Your task to perform on an android device: Go to Yahoo.com Image 0: 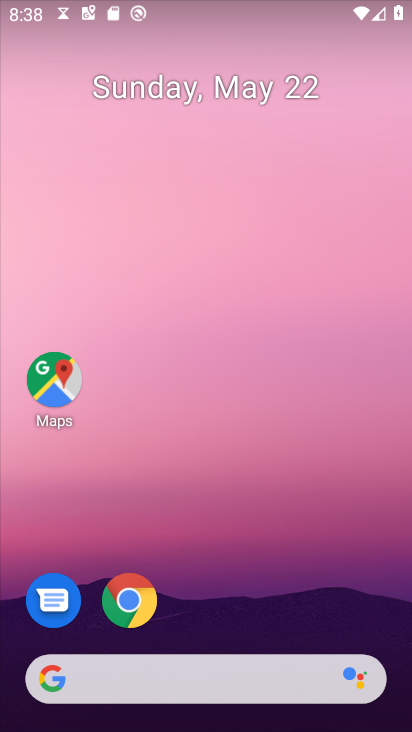
Step 0: click (130, 607)
Your task to perform on an android device: Go to Yahoo.com Image 1: 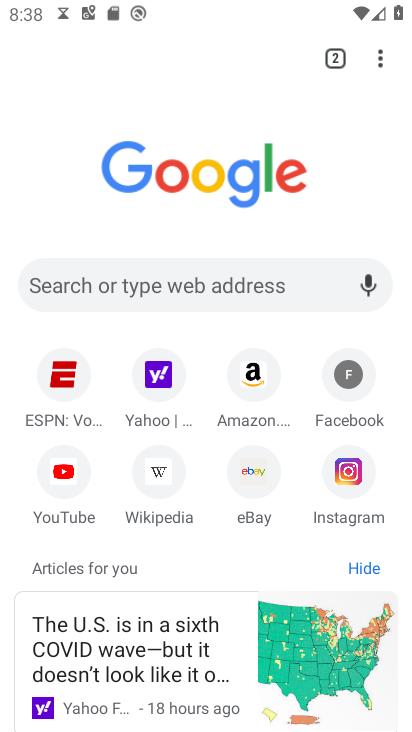
Step 1: click (146, 382)
Your task to perform on an android device: Go to Yahoo.com Image 2: 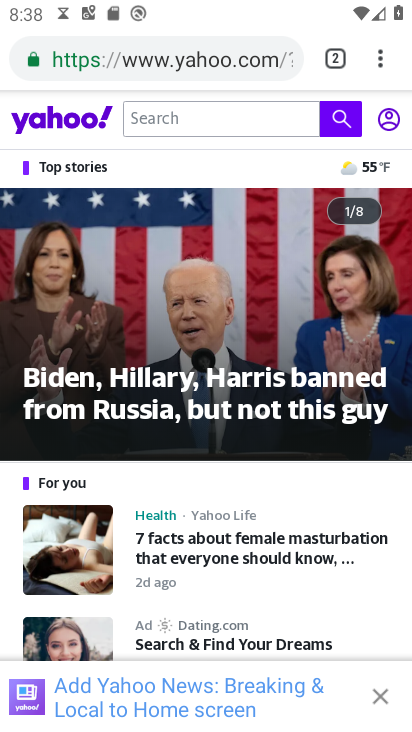
Step 2: task complete